Your task to perform on an android device: Open Google Maps Image 0: 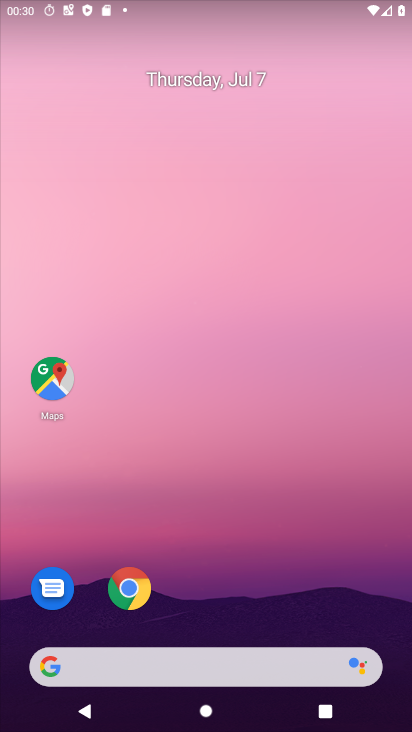
Step 0: drag from (231, 656) to (200, 71)
Your task to perform on an android device: Open Google Maps Image 1: 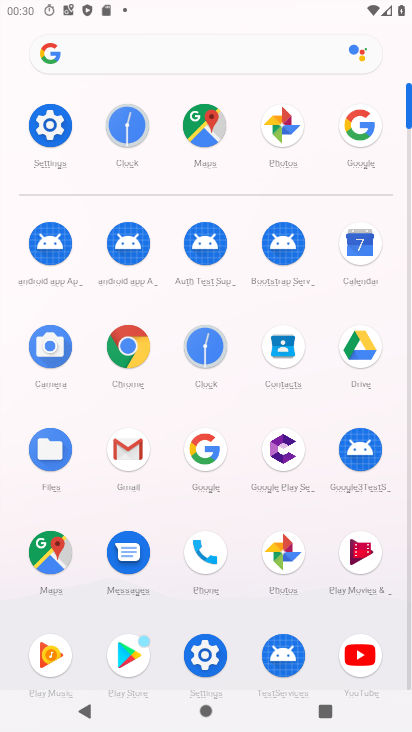
Step 1: click (47, 555)
Your task to perform on an android device: Open Google Maps Image 2: 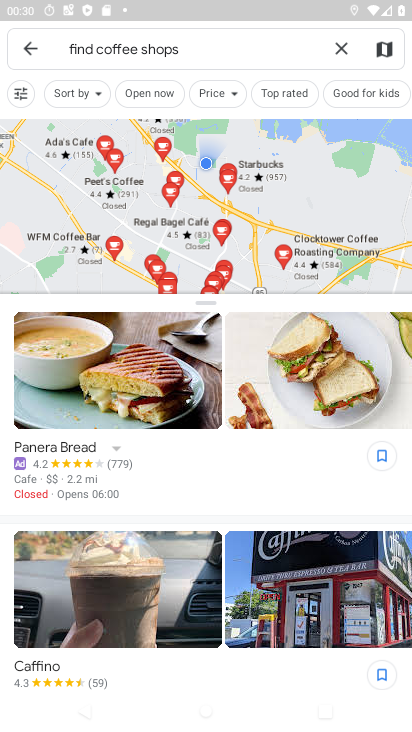
Step 2: task complete